Your task to perform on an android device: When is my next meeting? Image 0: 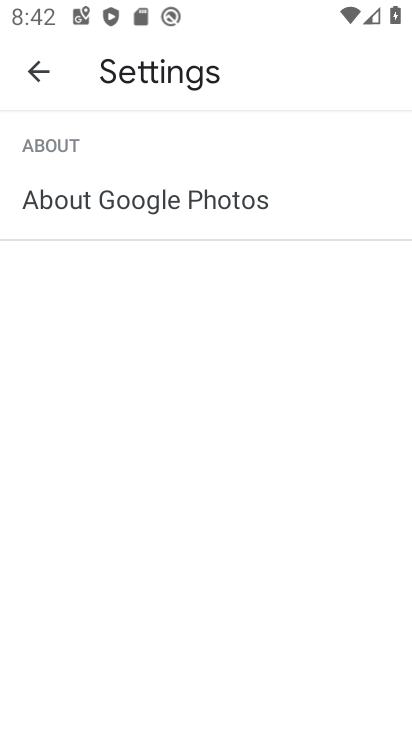
Step 0: press home button
Your task to perform on an android device: When is my next meeting? Image 1: 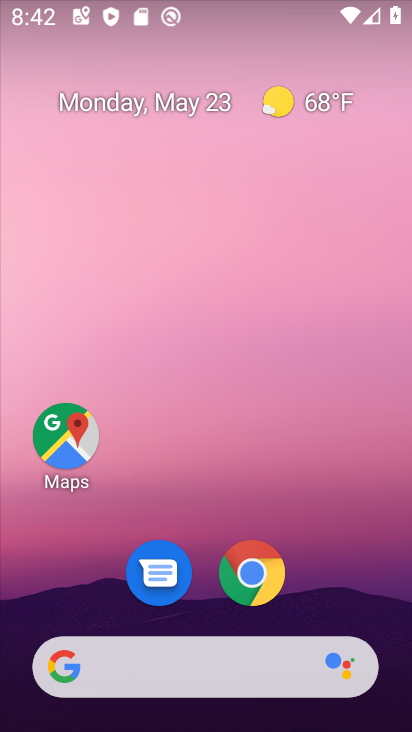
Step 1: drag from (327, 555) to (319, 217)
Your task to perform on an android device: When is my next meeting? Image 2: 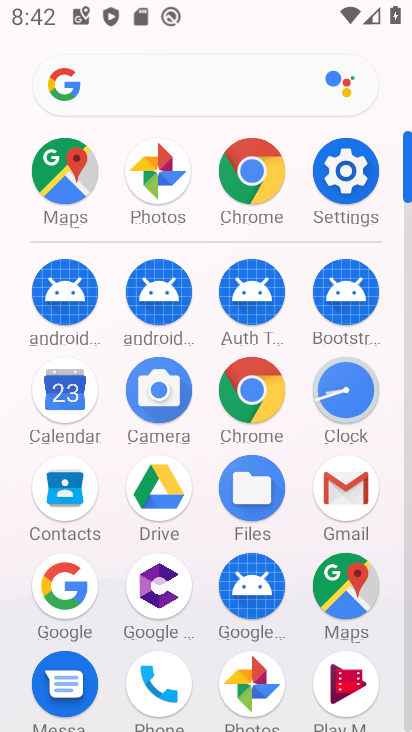
Step 2: click (59, 419)
Your task to perform on an android device: When is my next meeting? Image 3: 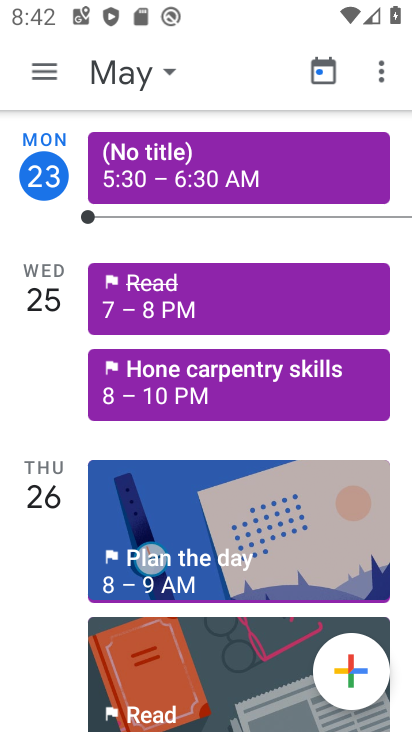
Step 3: click (144, 84)
Your task to perform on an android device: When is my next meeting? Image 4: 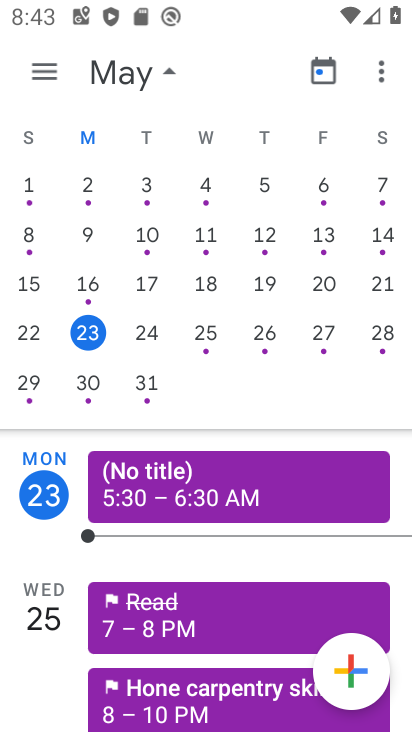
Step 4: click (44, 66)
Your task to perform on an android device: When is my next meeting? Image 5: 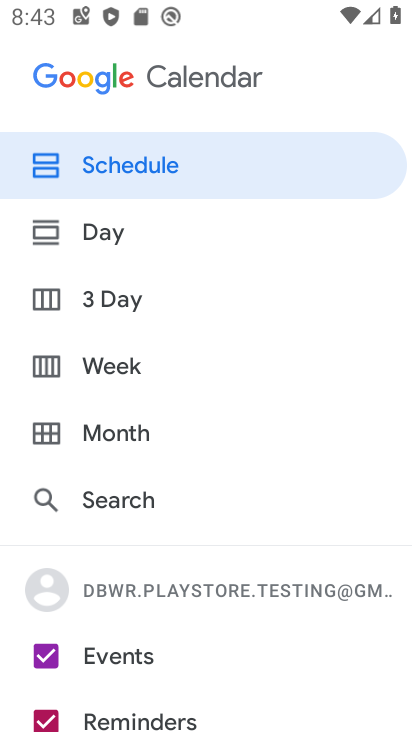
Step 5: task complete